Your task to perform on an android device: open chrome privacy settings Image 0: 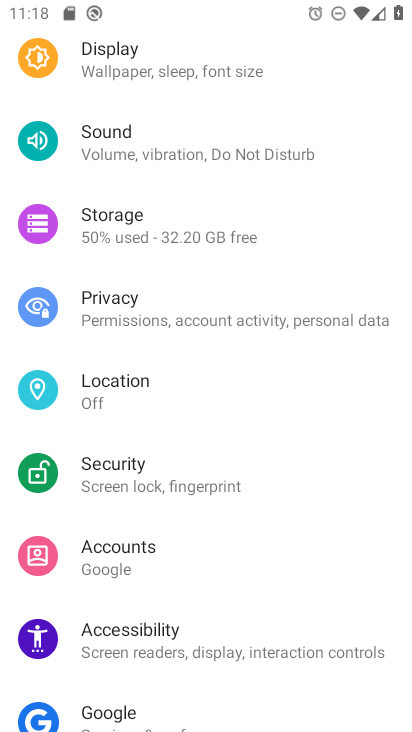
Step 0: press home button
Your task to perform on an android device: open chrome privacy settings Image 1: 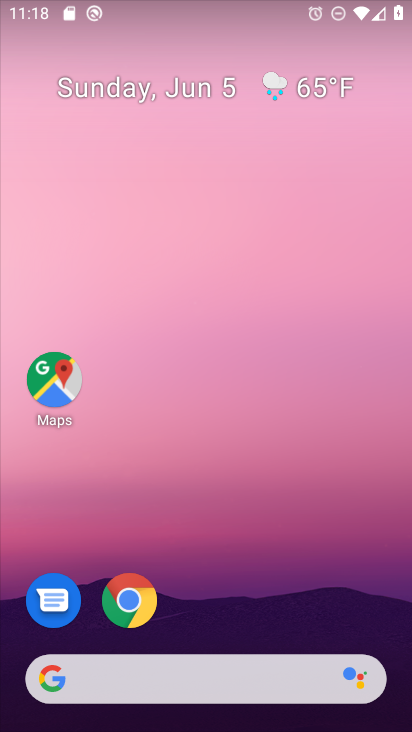
Step 1: drag from (386, 600) to (286, 54)
Your task to perform on an android device: open chrome privacy settings Image 2: 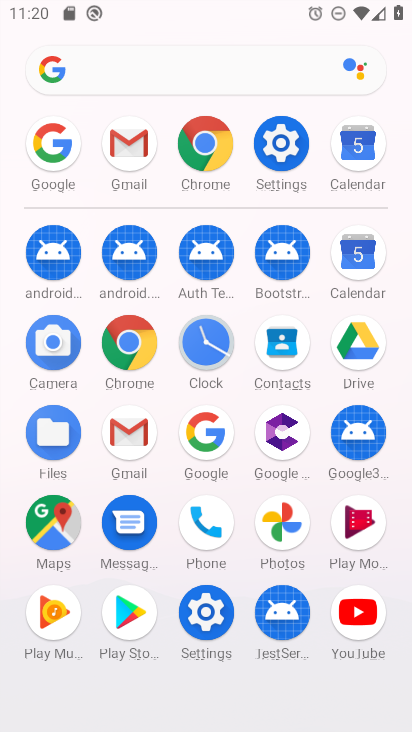
Step 2: click (130, 344)
Your task to perform on an android device: open chrome privacy settings Image 3: 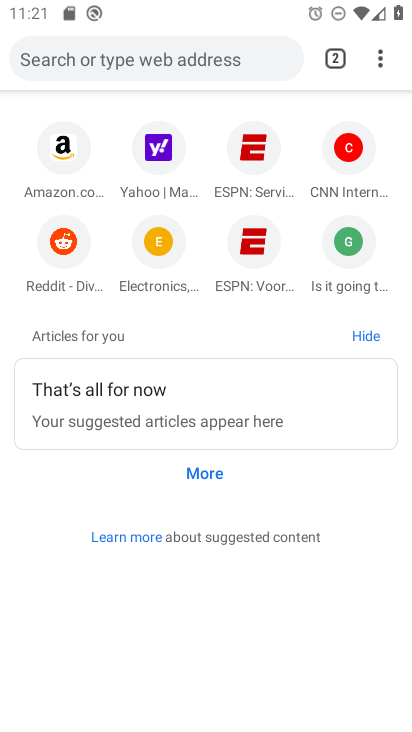
Step 3: click (385, 53)
Your task to perform on an android device: open chrome privacy settings Image 4: 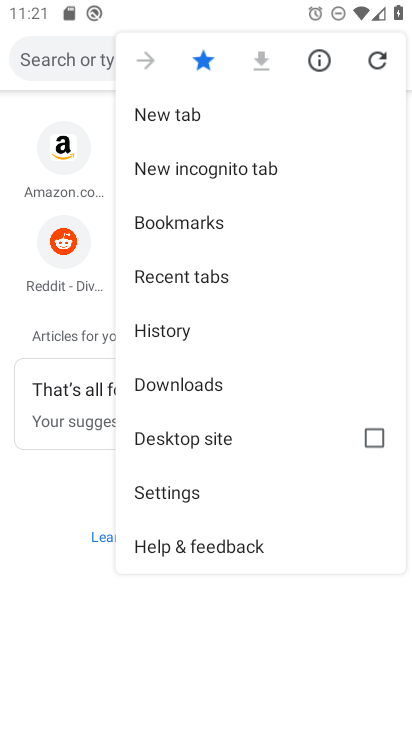
Step 4: click (234, 493)
Your task to perform on an android device: open chrome privacy settings Image 5: 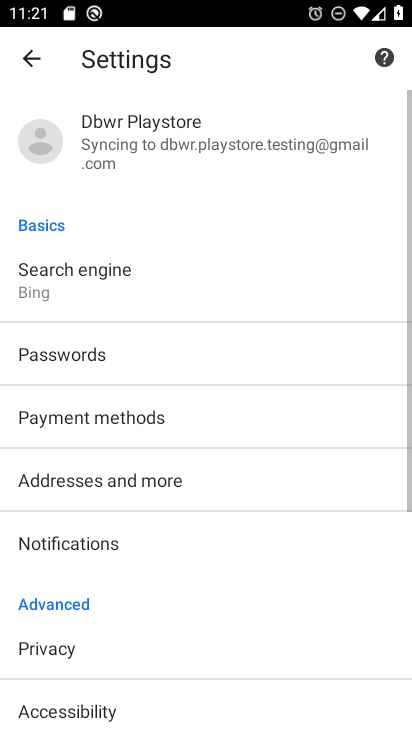
Step 5: click (123, 650)
Your task to perform on an android device: open chrome privacy settings Image 6: 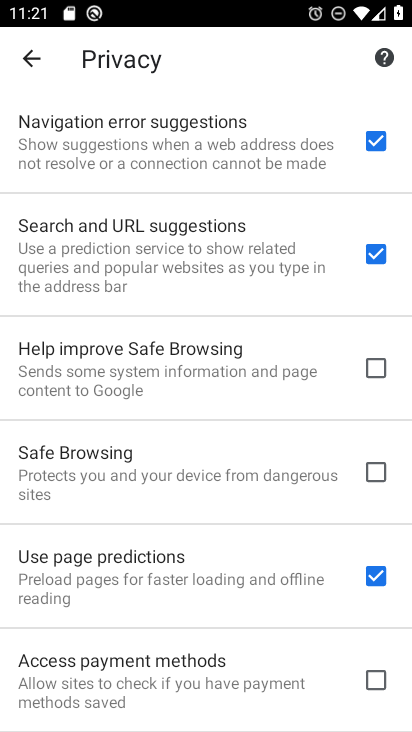
Step 6: task complete